Your task to perform on an android device: add a contact Image 0: 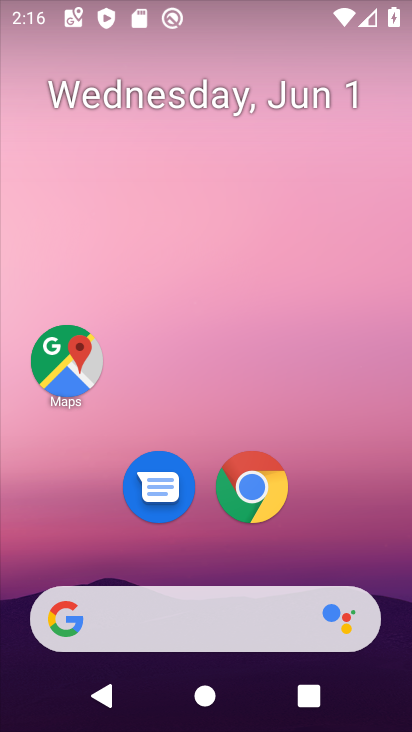
Step 0: drag from (341, 471) to (345, 75)
Your task to perform on an android device: add a contact Image 1: 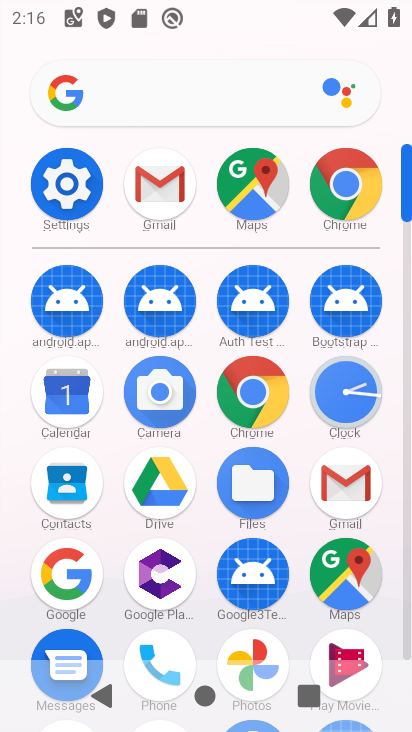
Step 1: click (69, 481)
Your task to perform on an android device: add a contact Image 2: 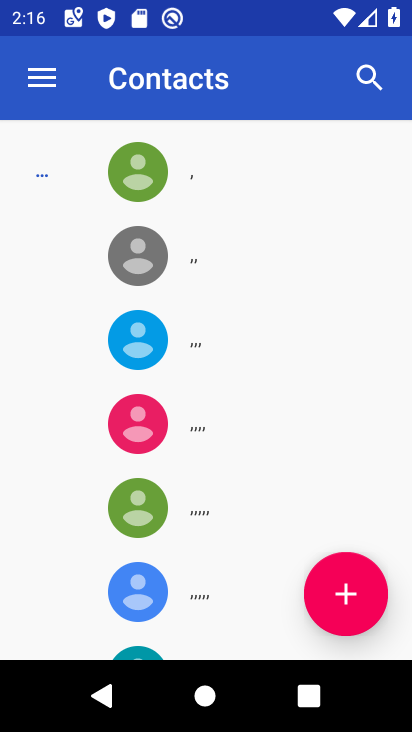
Step 2: click (358, 590)
Your task to perform on an android device: add a contact Image 3: 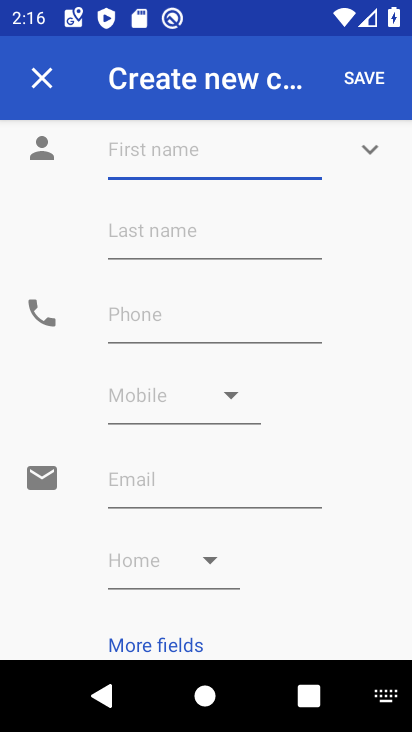
Step 3: click (225, 162)
Your task to perform on an android device: add a contact Image 4: 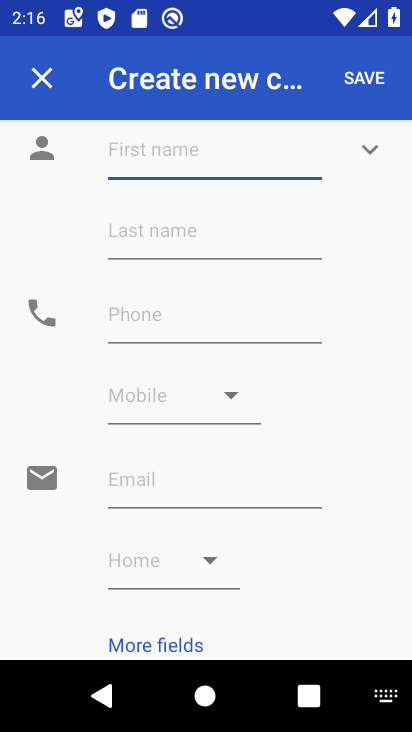
Step 4: type "lollll"
Your task to perform on an android device: add a contact Image 5: 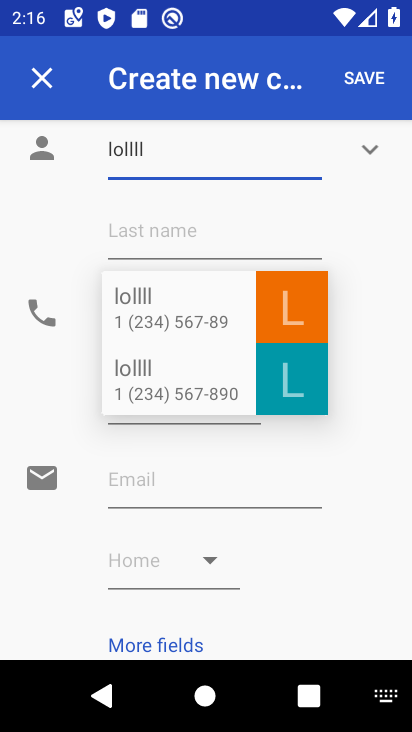
Step 5: click (387, 321)
Your task to perform on an android device: add a contact Image 6: 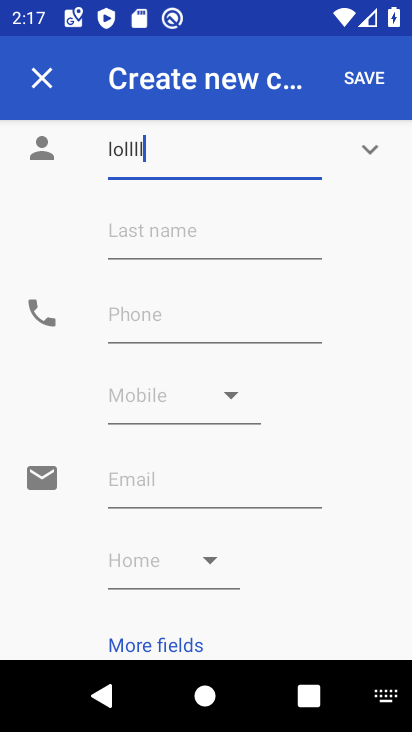
Step 6: click (237, 329)
Your task to perform on an android device: add a contact Image 7: 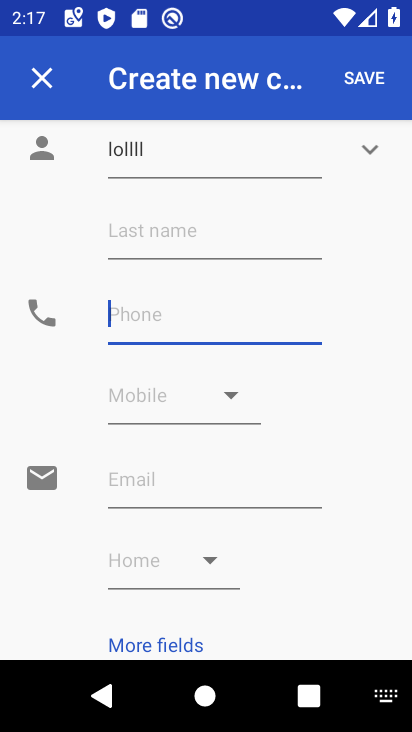
Step 7: type "123456789"
Your task to perform on an android device: add a contact Image 8: 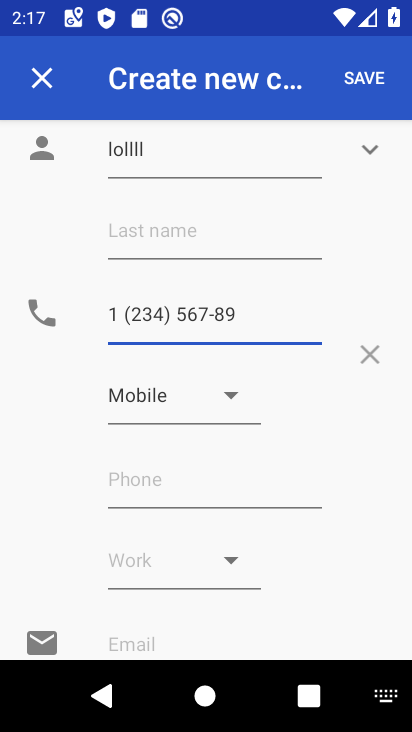
Step 8: click (359, 78)
Your task to perform on an android device: add a contact Image 9: 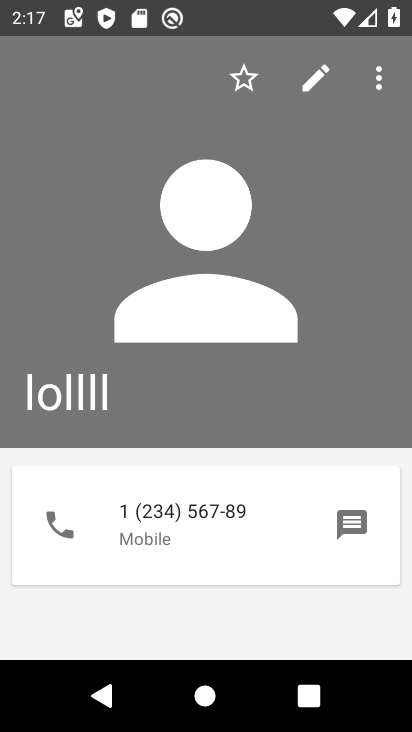
Step 9: task complete